Your task to perform on an android device: Open the map Image 0: 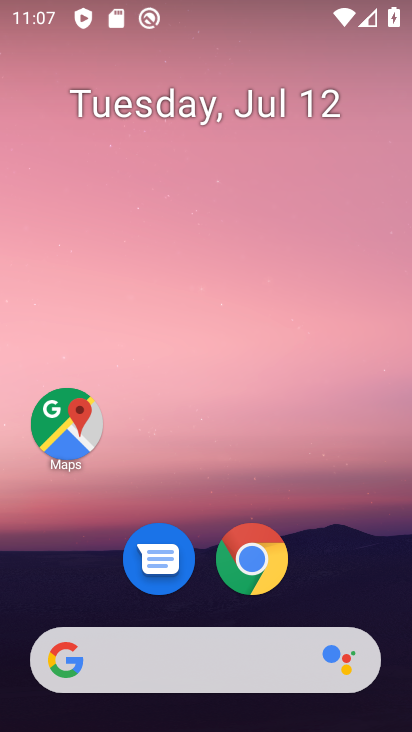
Step 0: drag from (204, 603) to (207, 198)
Your task to perform on an android device: Open the map Image 1: 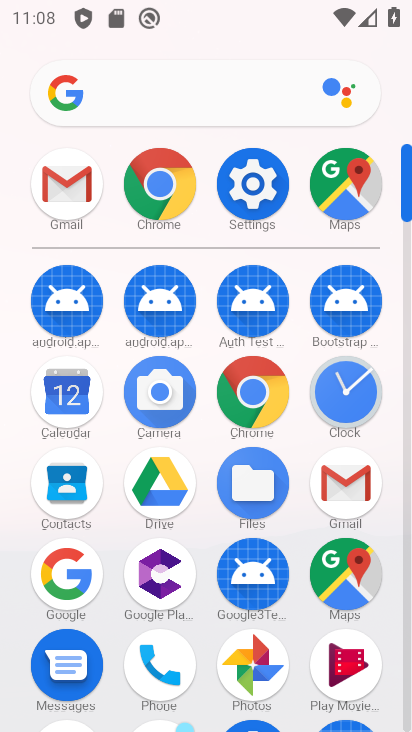
Step 1: click (362, 577)
Your task to perform on an android device: Open the map Image 2: 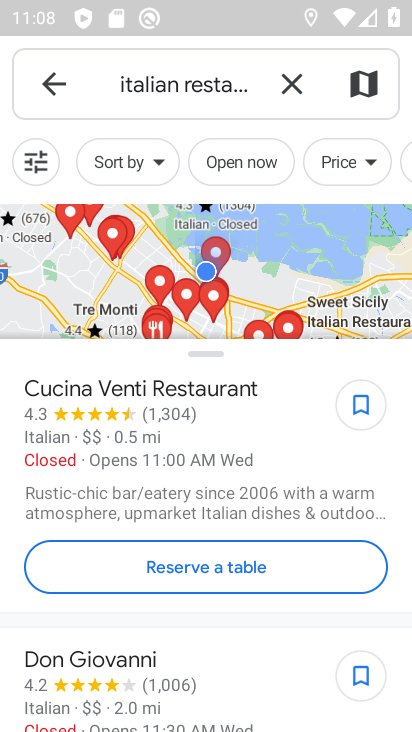
Step 2: task complete